Your task to perform on an android device: Show me the best rated 42 inch TV on Walmart. Image 0: 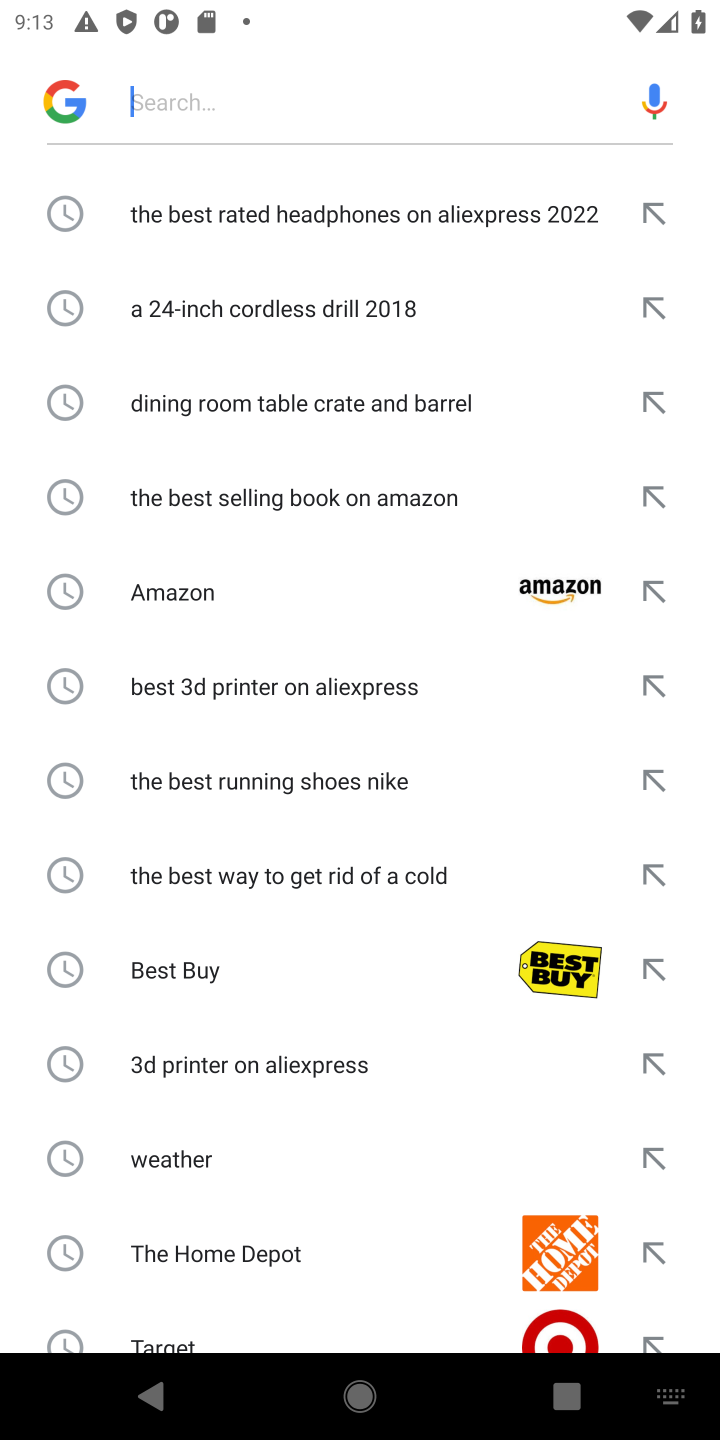
Step 0: press home button
Your task to perform on an android device: Show me the best rated 42 inch TV on Walmart. Image 1: 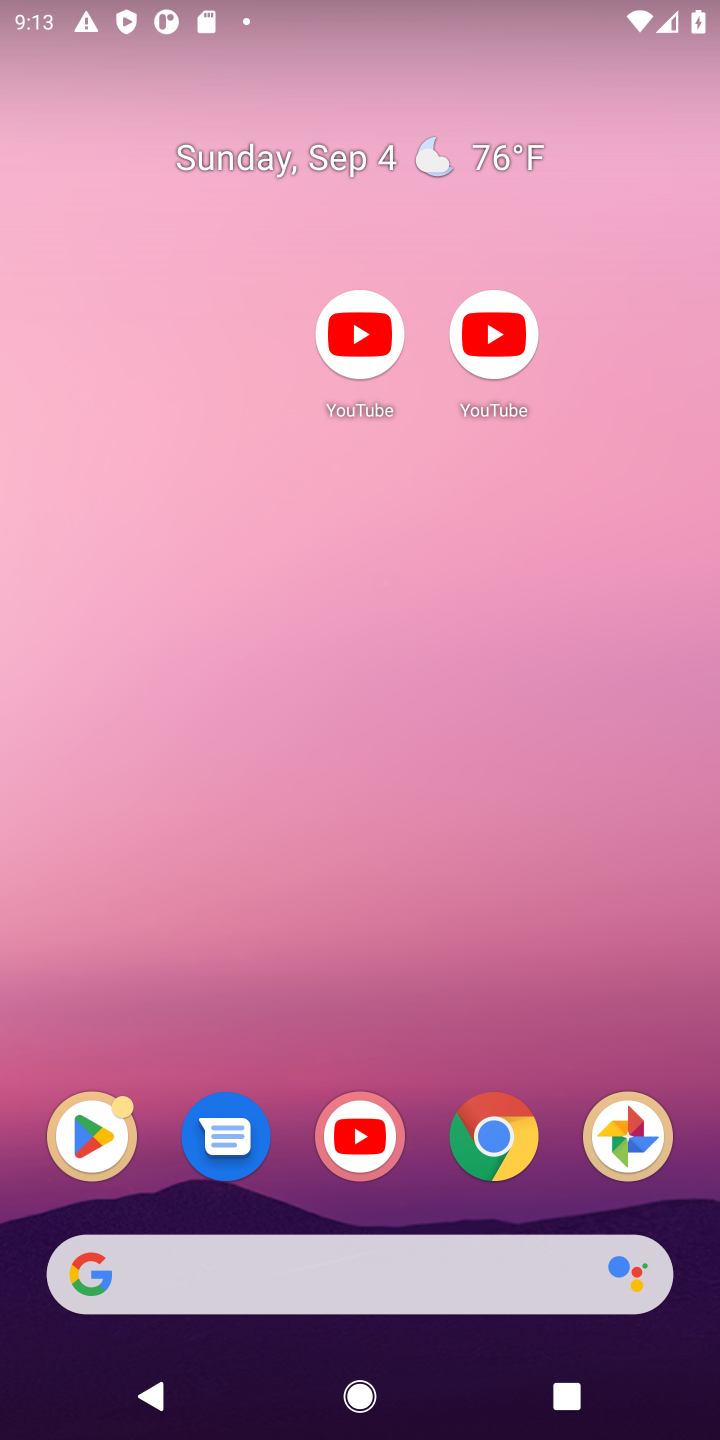
Step 1: drag from (359, 992) to (160, 71)
Your task to perform on an android device: Show me the best rated 42 inch TV on Walmart. Image 2: 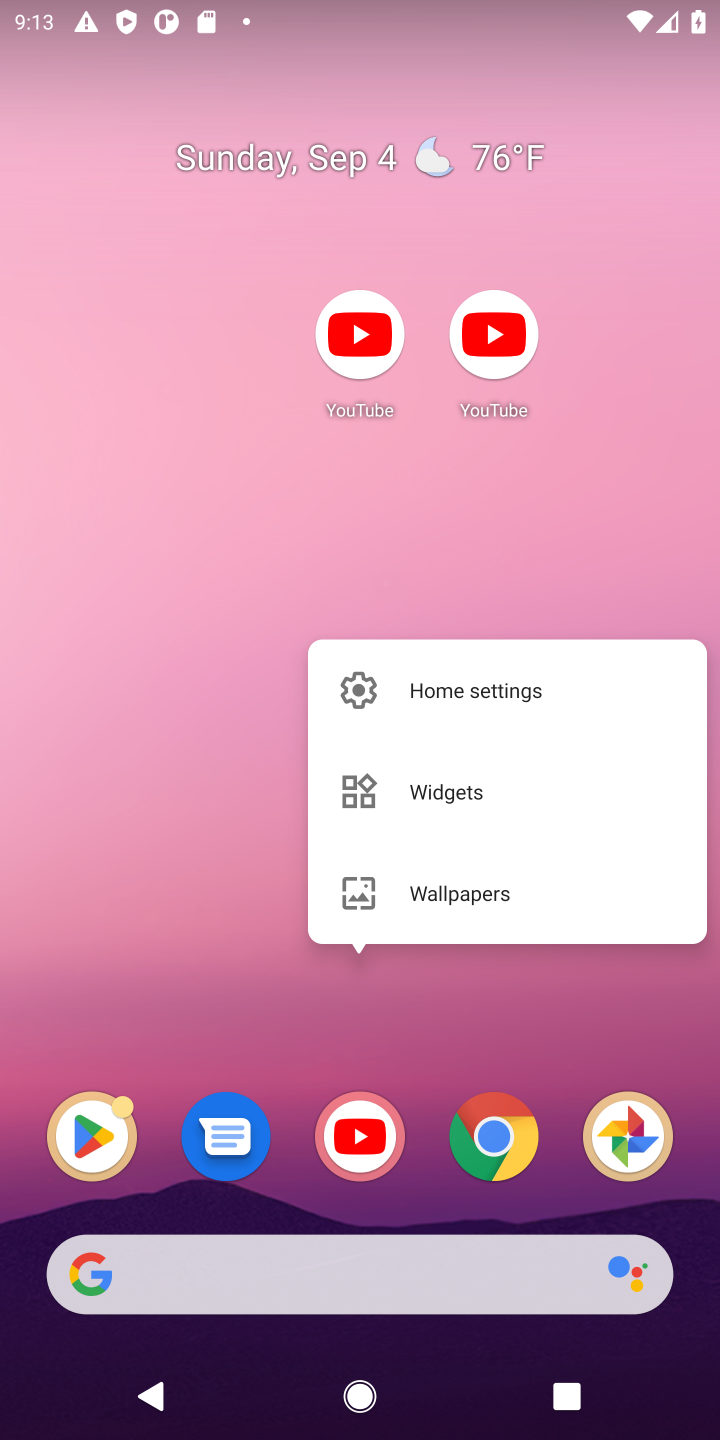
Step 2: click (495, 1138)
Your task to perform on an android device: Show me the best rated 42 inch TV on Walmart. Image 3: 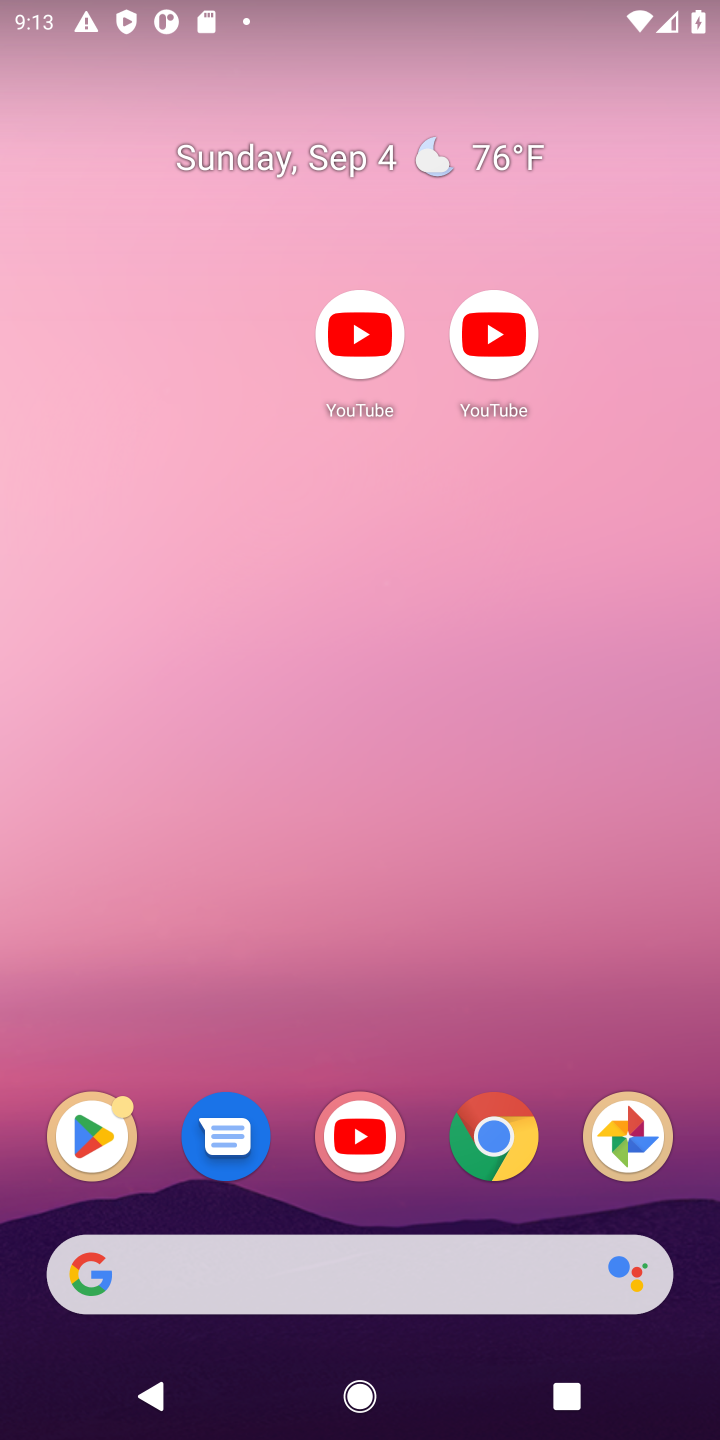
Step 3: click (495, 1138)
Your task to perform on an android device: Show me the best rated 42 inch TV on Walmart. Image 4: 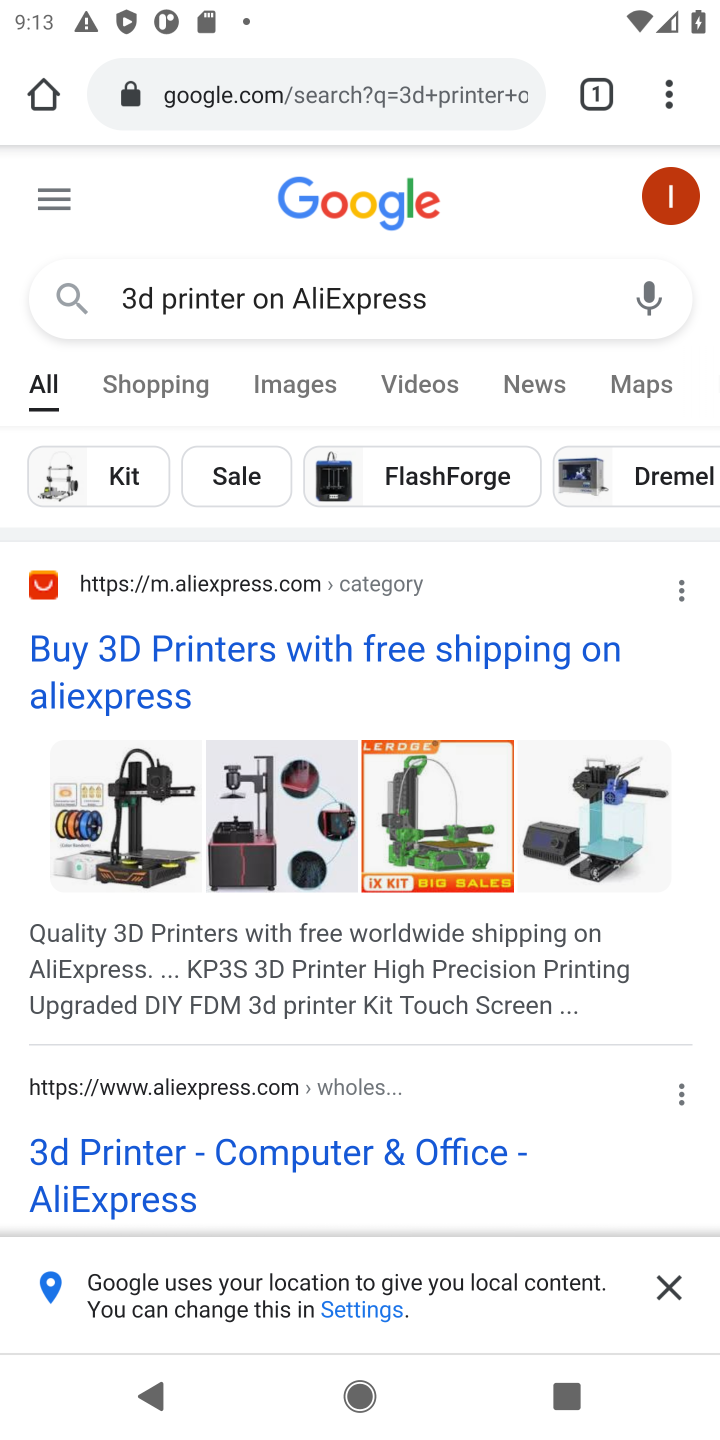
Step 4: click (678, 1283)
Your task to perform on an android device: Show me the best rated 42 inch TV on Walmart. Image 5: 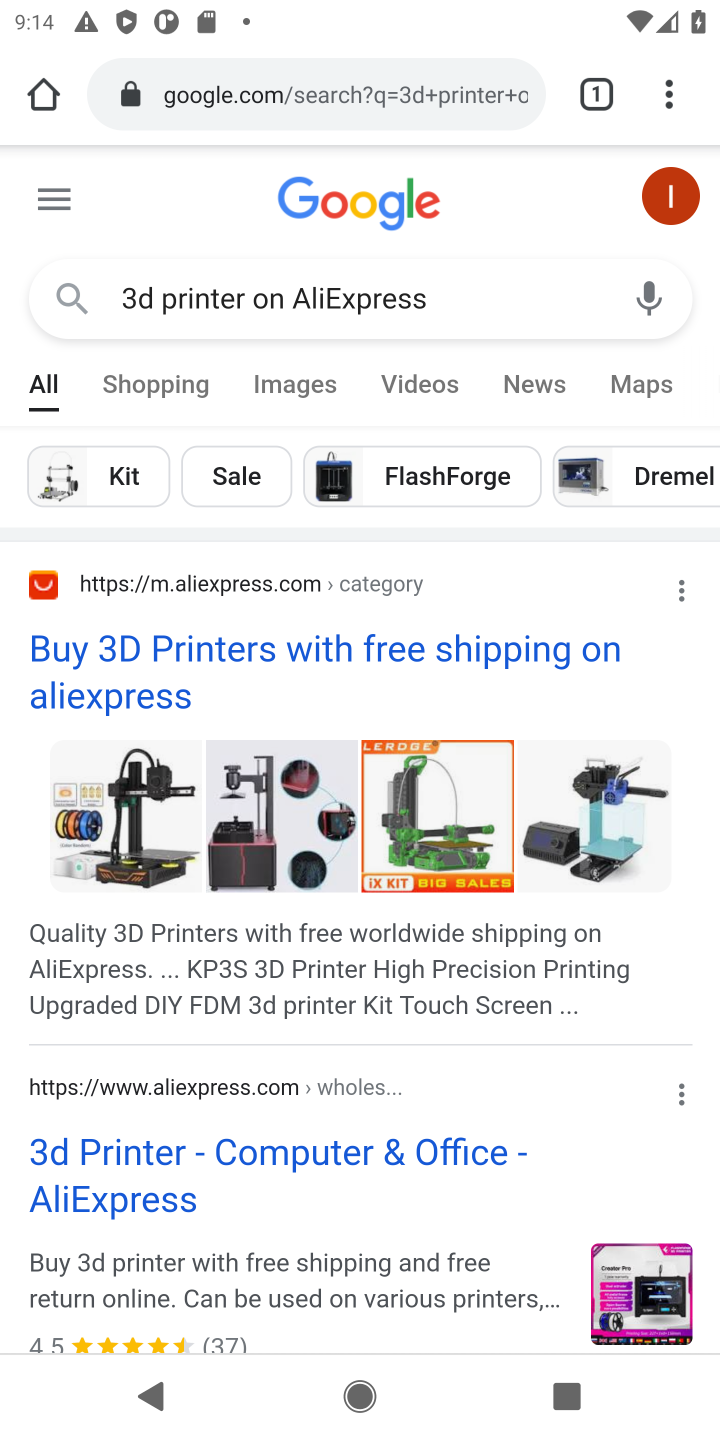
Step 5: click (505, 296)
Your task to perform on an android device: Show me the best rated 42 inch TV on Walmart. Image 6: 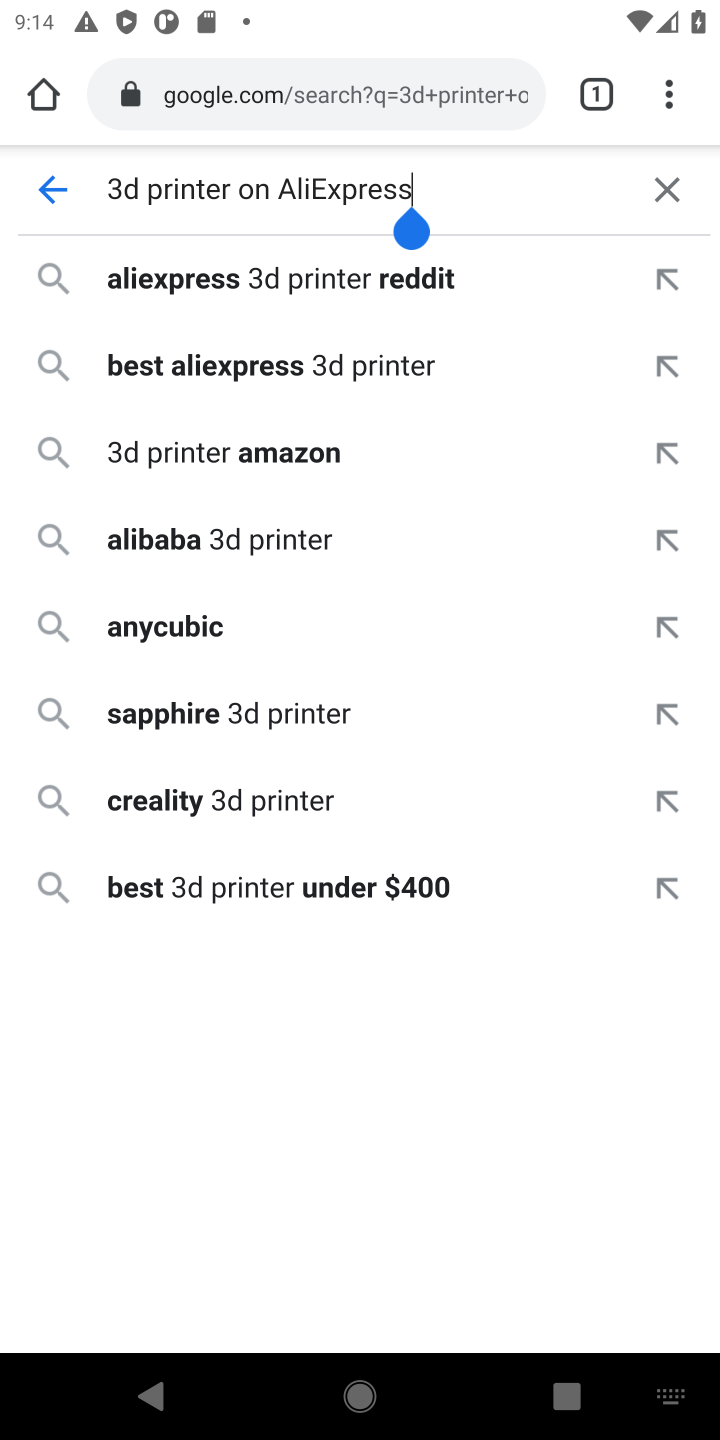
Step 6: click (677, 180)
Your task to perform on an android device: Show me the best rated 42 inch TV on Walmart. Image 7: 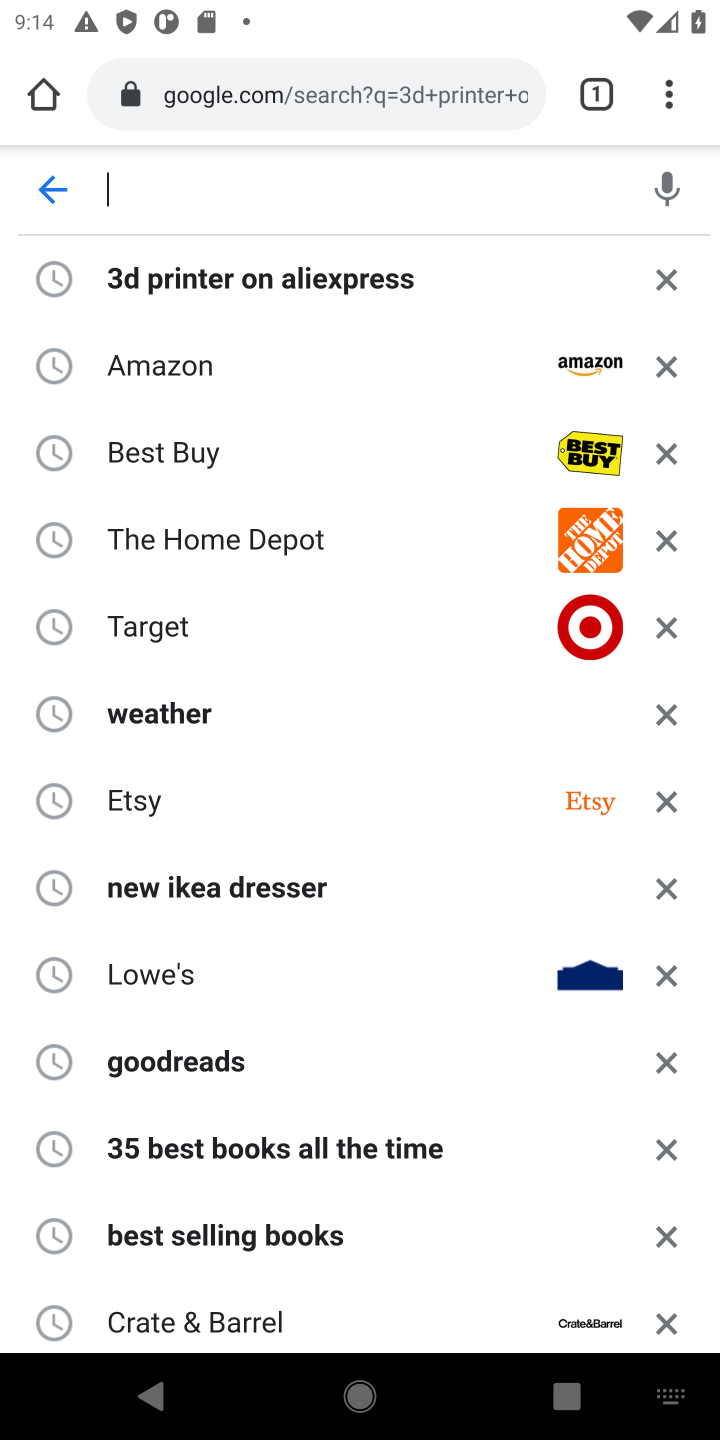
Step 7: type "the best rated 42 inch TV on Walmart."
Your task to perform on an android device: Show me the best rated 42 inch TV on Walmart. Image 8: 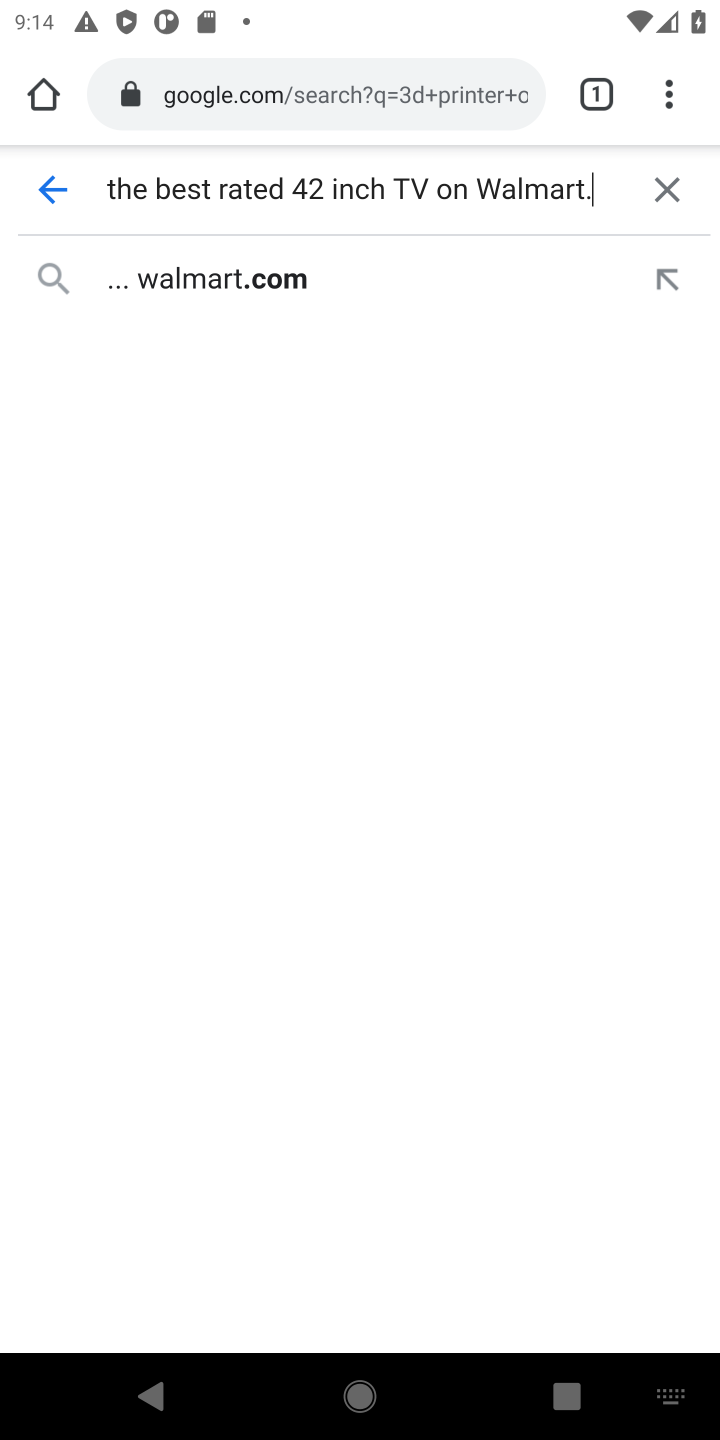
Step 8: click (297, 273)
Your task to perform on an android device: Show me the best rated 42 inch TV on Walmart. Image 9: 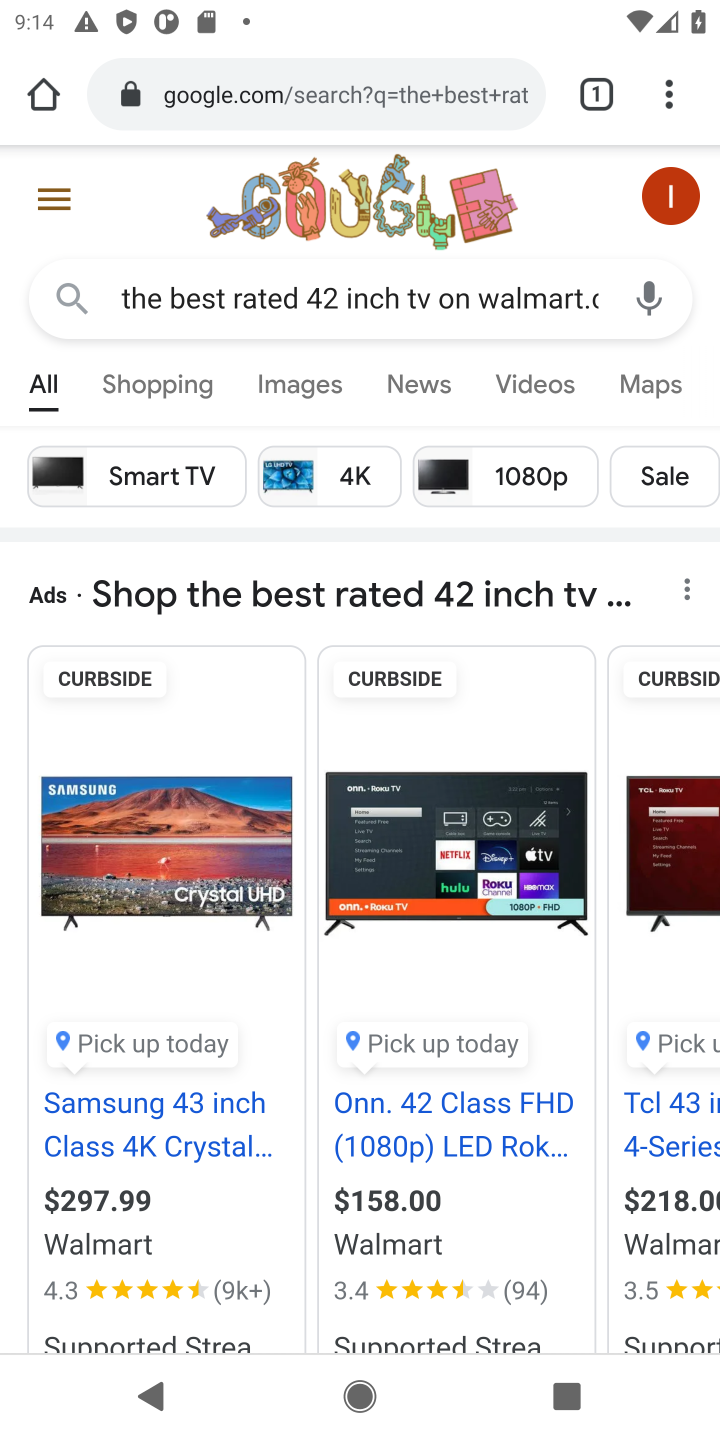
Step 9: task complete